Your task to perform on an android device: Open calendar and show me the fourth week of next month Image 0: 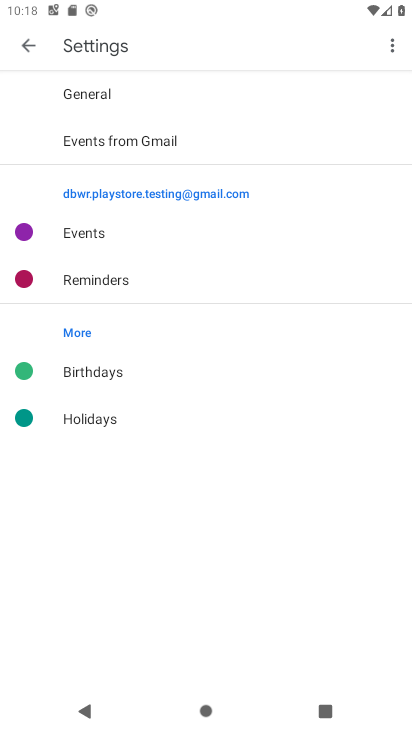
Step 0: press home button
Your task to perform on an android device: Open calendar and show me the fourth week of next month Image 1: 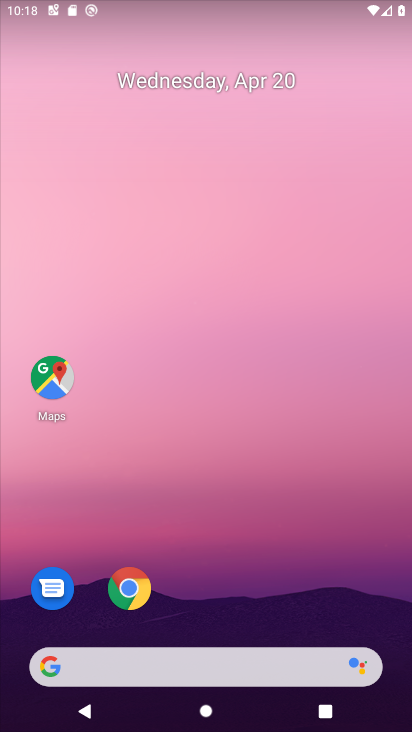
Step 1: drag from (228, 509) to (228, 12)
Your task to perform on an android device: Open calendar and show me the fourth week of next month Image 2: 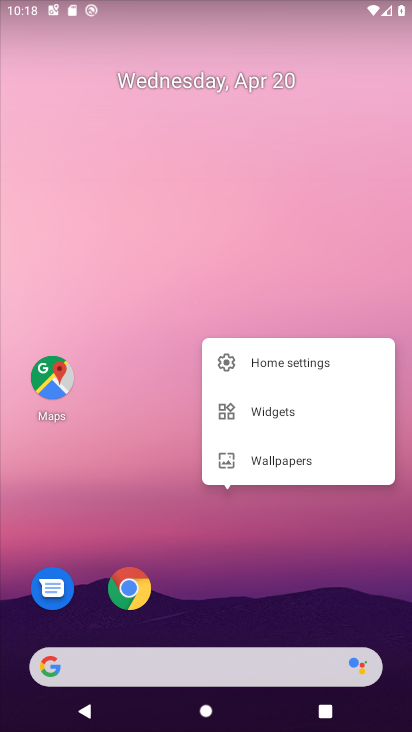
Step 2: click (250, 543)
Your task to perform on an android device: Open calendar and show me the fourth week of next month Image 3: 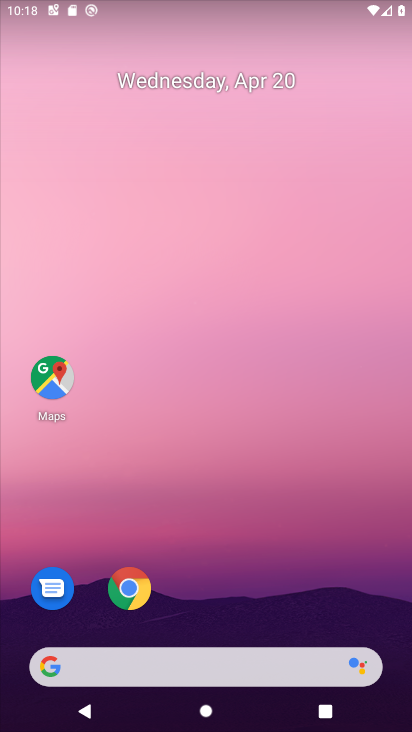
Step 3: drag from (250, 624) to (252, 228)
Your task to perform on an android device: Open calendar and show me the fourth week of next month Image 4: 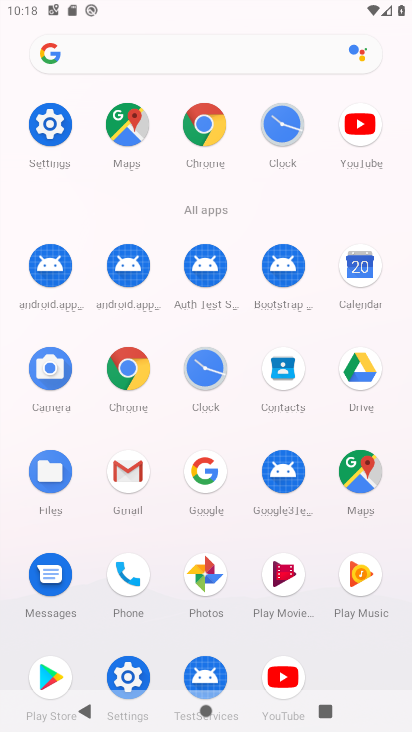
Step 4: click (357, 268)
Your task to perform on an android device: Open calendar and show me the fourth week of next month Image 5: 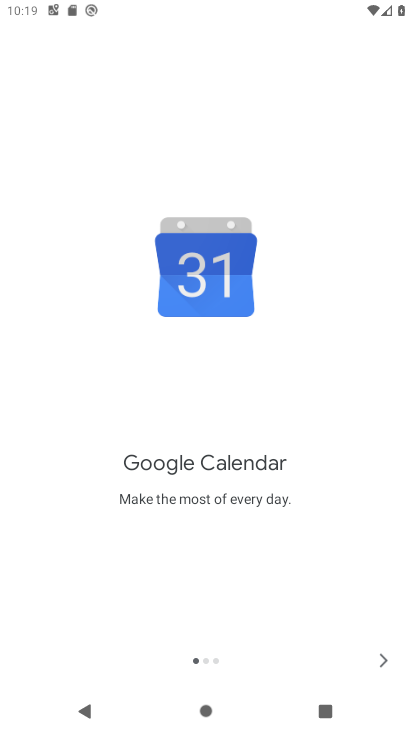
Step 5: click (385, 665)
Your task to perform on an android device: Open calendar and show me the fourth week of next month Image 6: 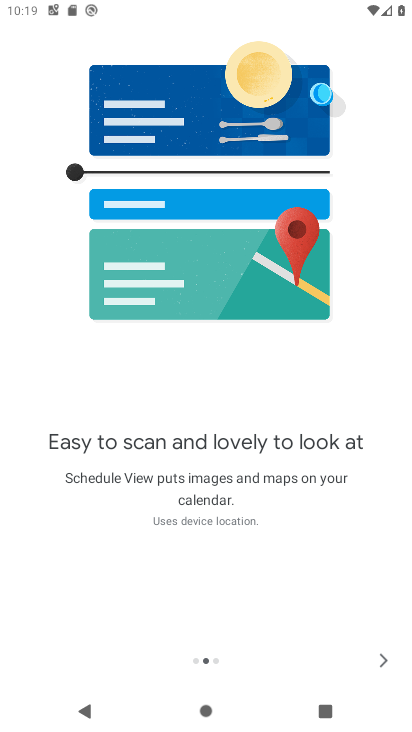
Step 6: click (385, 665)
Your task to perform on an android device: Open calendar and show me the fourth week of next month Image 7: 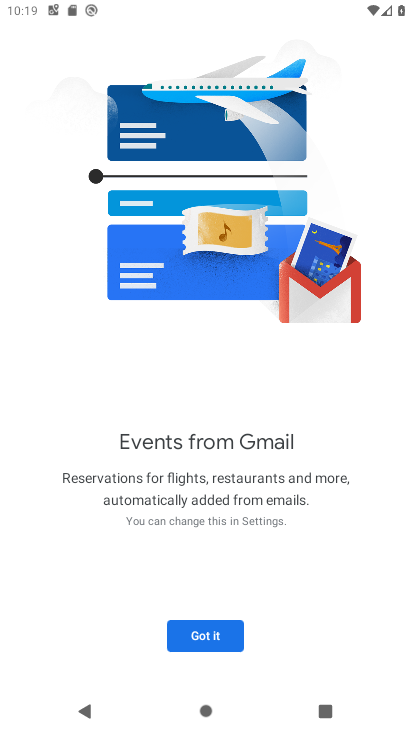
Step 7: click (204, 631)
Your task to perform on an android device: Open calendar and show me the fourth week of next month Image 8: 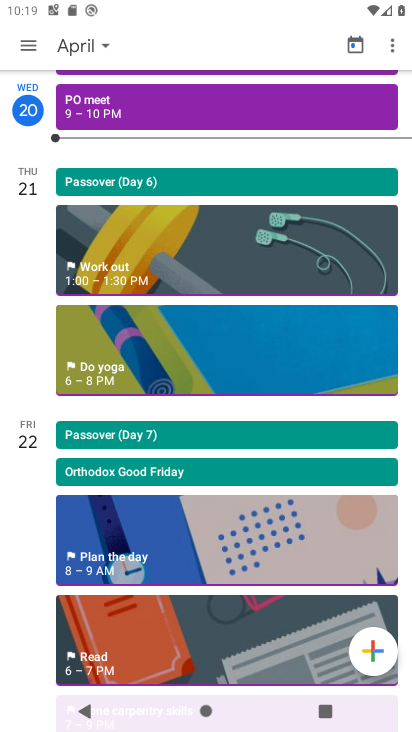
Step 8: click (100, 42)
Your task to perform on an android device: Open calendar and show me the fourth week of next month Image 9: 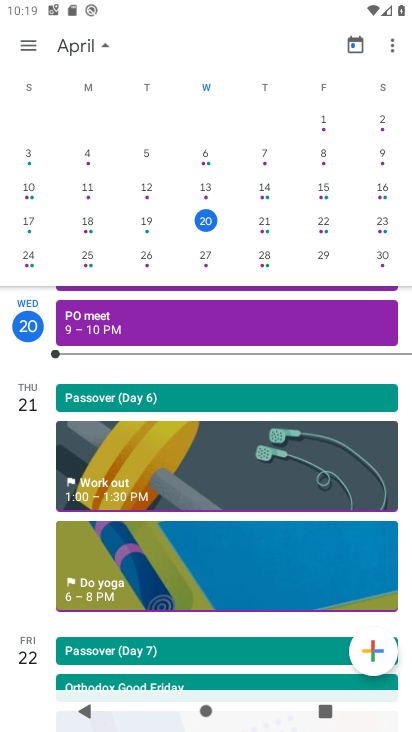
Step 9: drag from (380, 184) to (82, 204)
Your task to perform on an android device: Open calendar and show me the fourth week of next month Image 10: 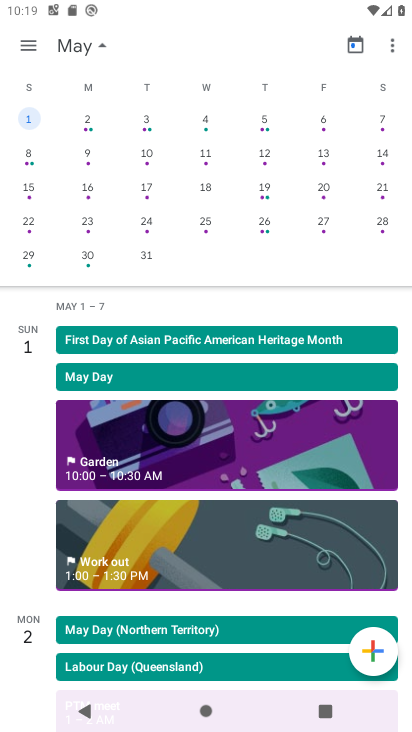
Step 10: click (86, 220)
Your task to perform on an android device: Open calendar and show me the fourth week of next month Image 11: 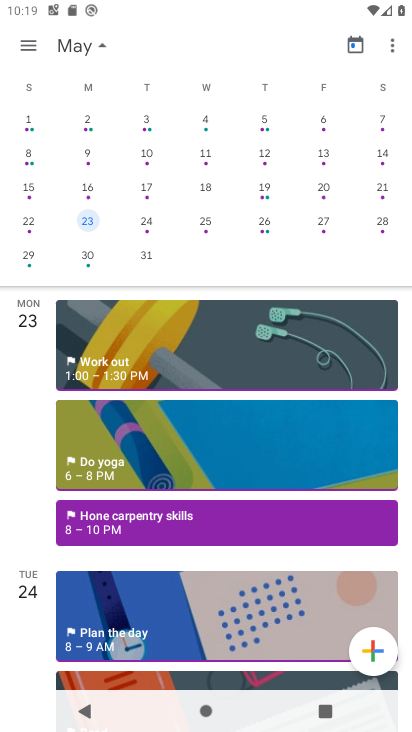
Step 11: drag from (192, 424) to (192, 619)
Your task to perform on an android device: Open calendar and show me the fourth week of next month Image 12: 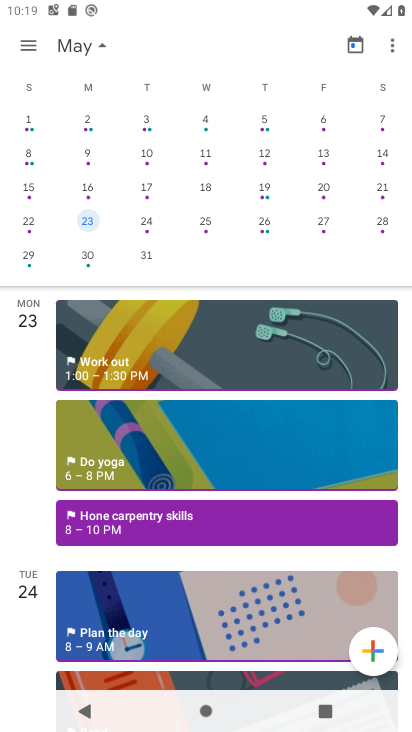
Step 12: click (22, 50)
Your task to perform on an android device: Open calendar and show me the fourth week of next month Image 13: 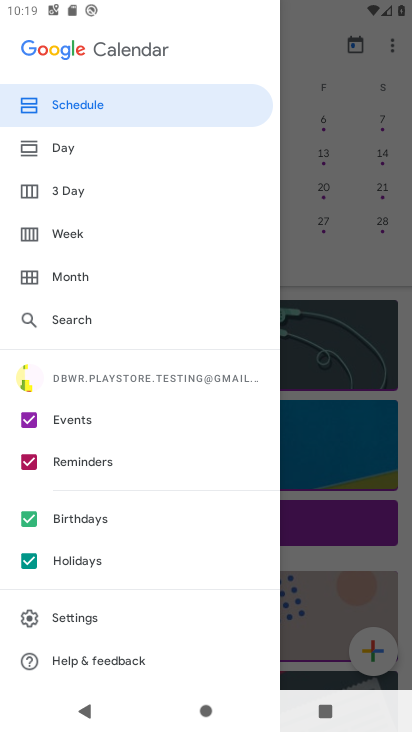
Step 13: click (67, 229)
Your task to perform on an android device: Open calendar and show me the fourth week of next month Image 14: 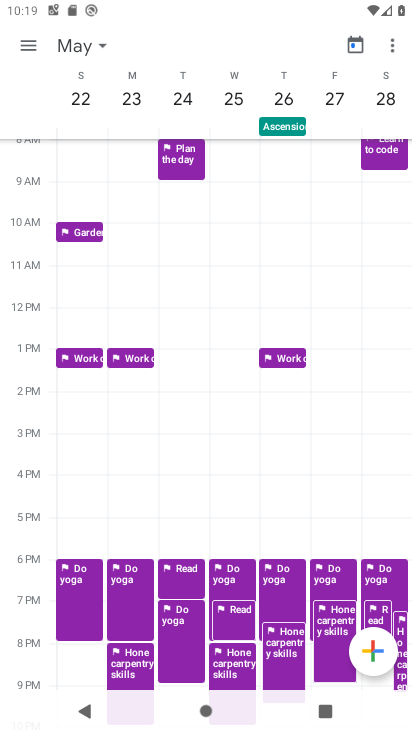
Step 14: task complete